Your task to perform on an android device: Go to eBay Image 0: 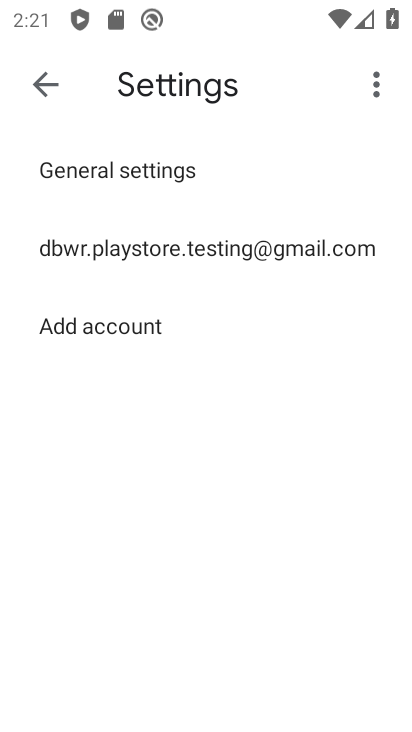
Step 0: press home button
Your task to perform on an android device: Go to eBay Image 1: 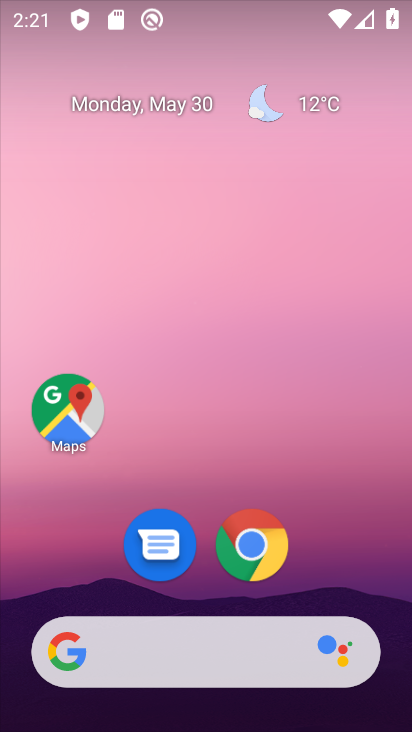
Step 1: click (210, 637)
Your task to perform on an android device: Go to eBay Image 2: 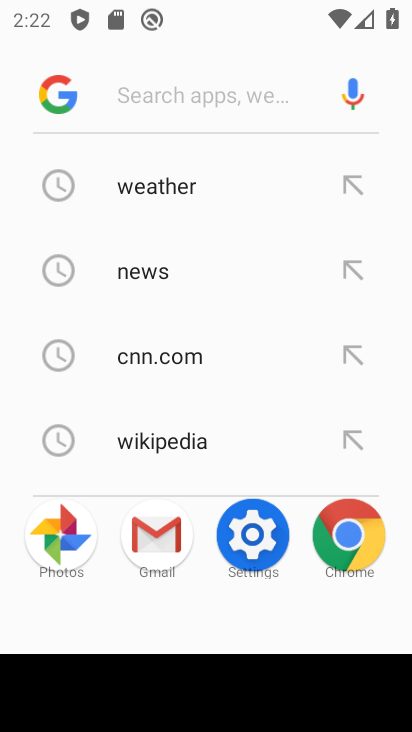
Step 2: type "ebay"
Your task to perform on an android device: Go to eBay Image 3: 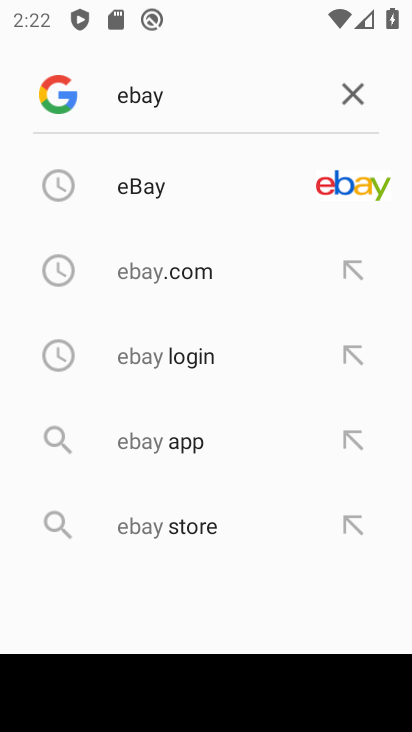
Step 3: click (334, 197)
Your task to perform on an android device: Go to eBay Image 4: 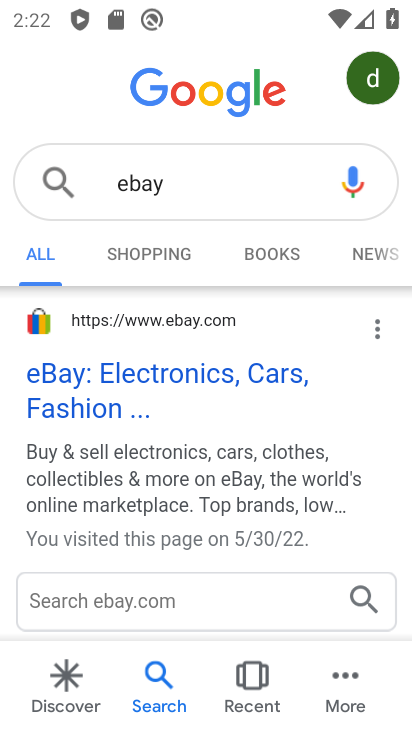
Step 4: click (179, 396)
Your task to perform on an android device: Go to eBay Image 5: 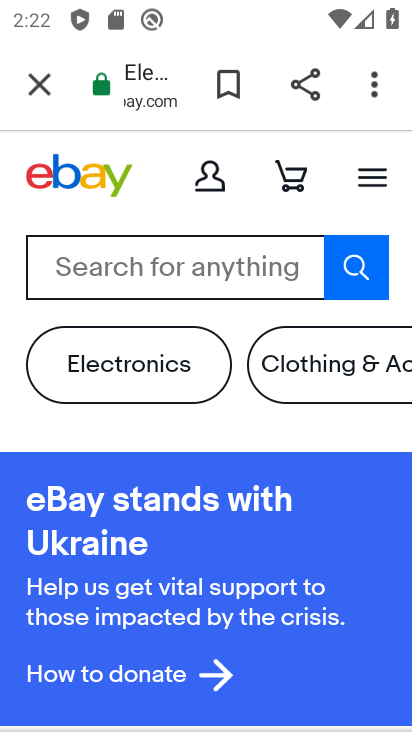
Step 5: task complete